Your task to perform on an android device: check battery use Image 0: 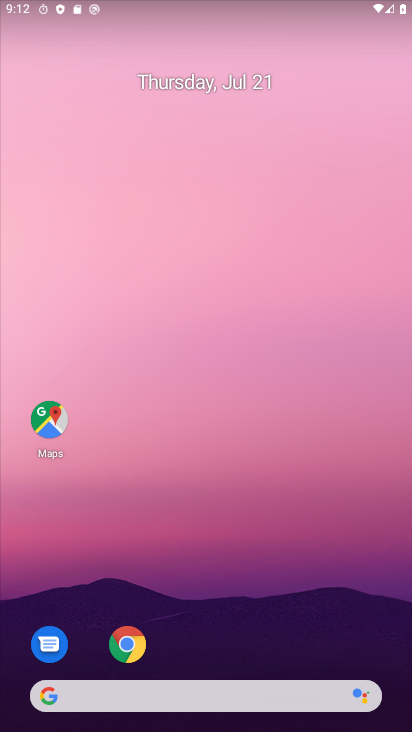
Step 0: click (403, 695)
Your task to perform on an android device: check battery use Image 1: 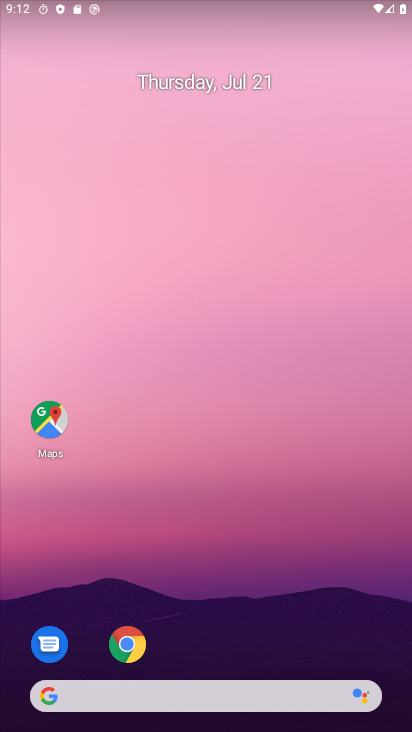
Step 1: drag from (174, 693) to (221, 26)
Your task to perform on an android device: check battery use Image 2: 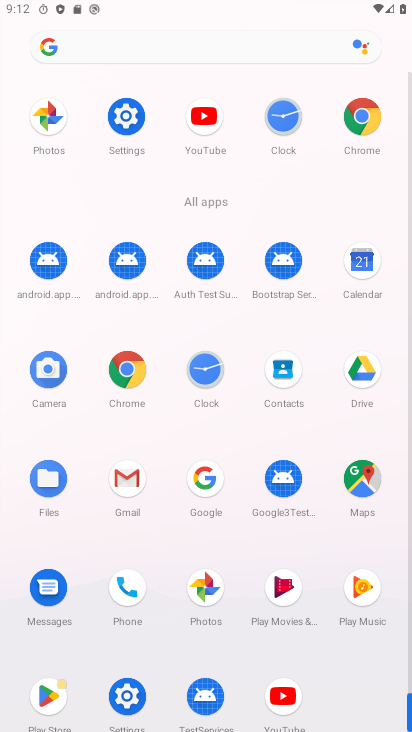
Step 2: click (127, 122)
Your task to perform on an android device: check battery use Image 3: 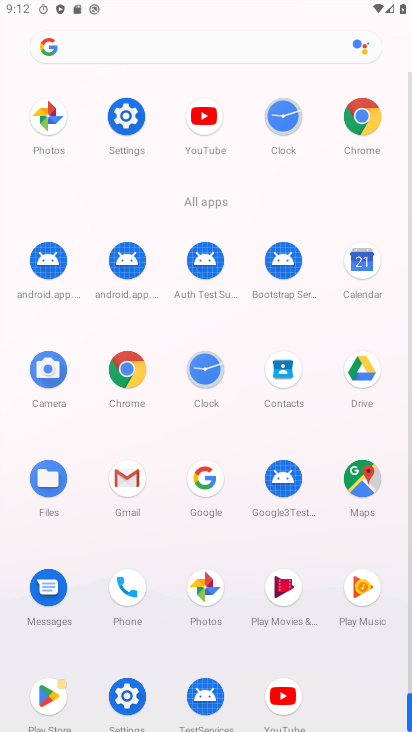
Step 3: click (127, 122)
Your task to perform on an android device: check battery use Image 4: 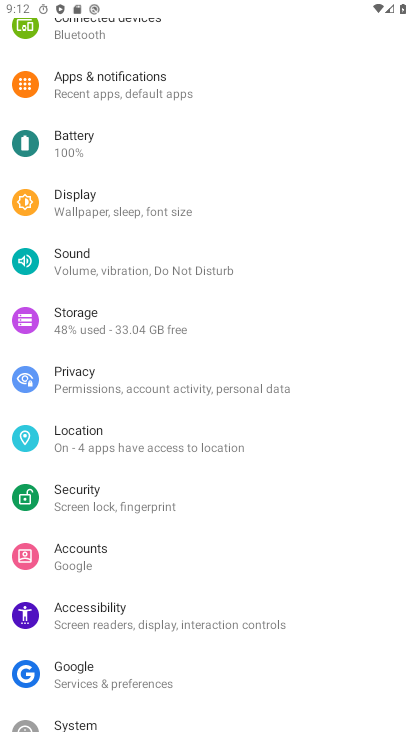
Step 4: click (68, 154)
Your task to perform on an android device: check battery use Image 5: 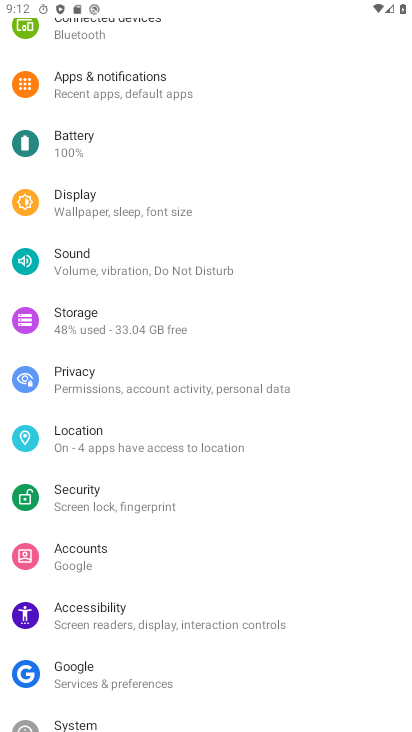
Step 5: click (68, 154)
Your task to perform on an android device: check battery use Image 6: 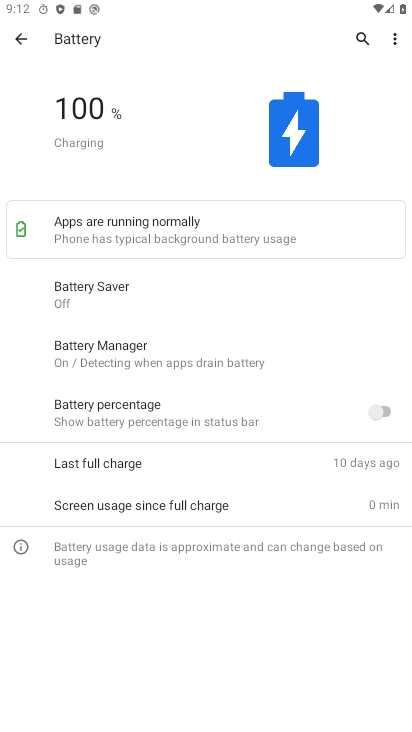
Step 6: task complete